Your task to perform on an android device: turn off wifi Image 0: 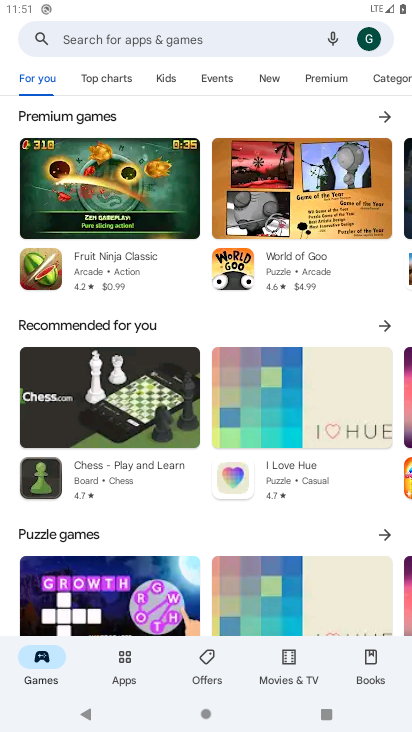
Step 0: press home button
Your task to perform on an android device: turn off wifi Image 1: 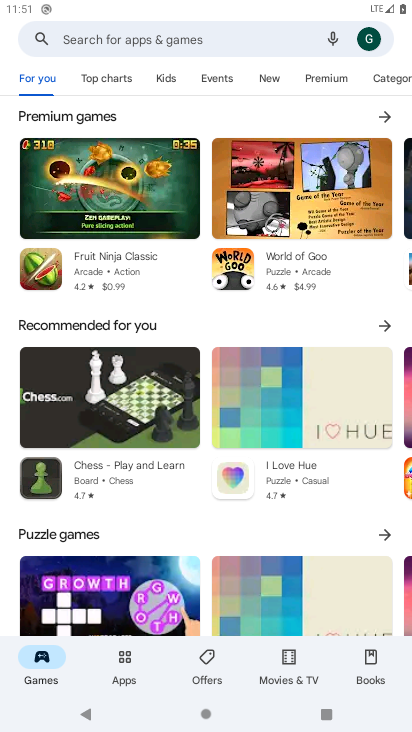
Step 1: task complete